Your task to perform on an android device: Open Reddit.com Image 0: 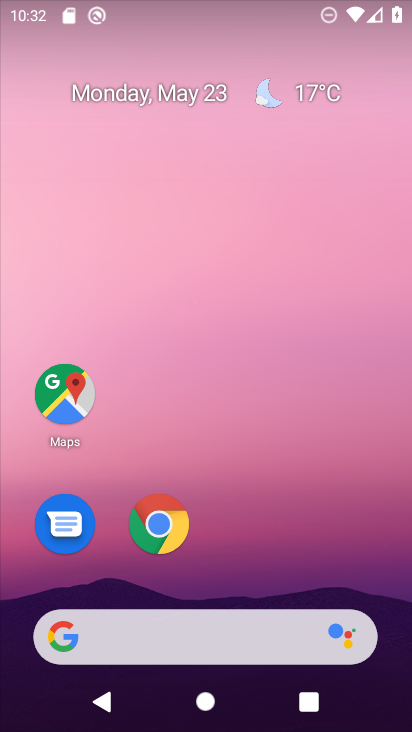
Step 0: click (152, 514)
Your task to perform on an android device: Open Reddit.com Image 1: 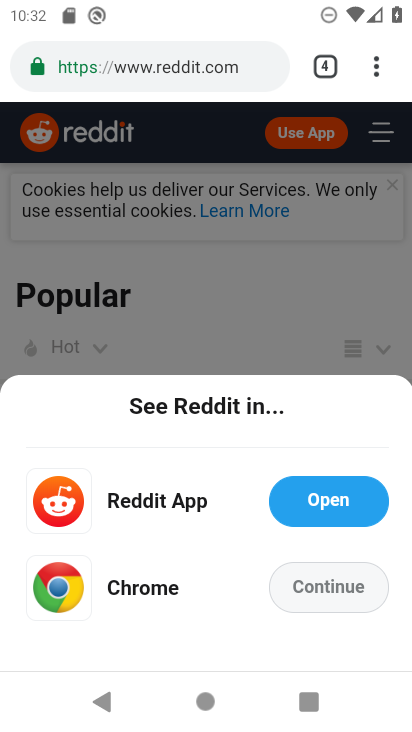
Step 1: click (319, 71)
Your task to perform on an android device: Open Reddit.com Image 2: 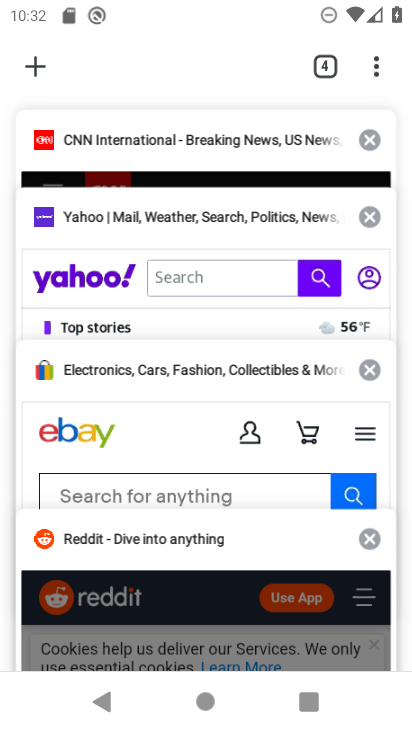
Step 2: click (108, 576)
Your task to perform on an android device: Open Reddit.com Image 3: 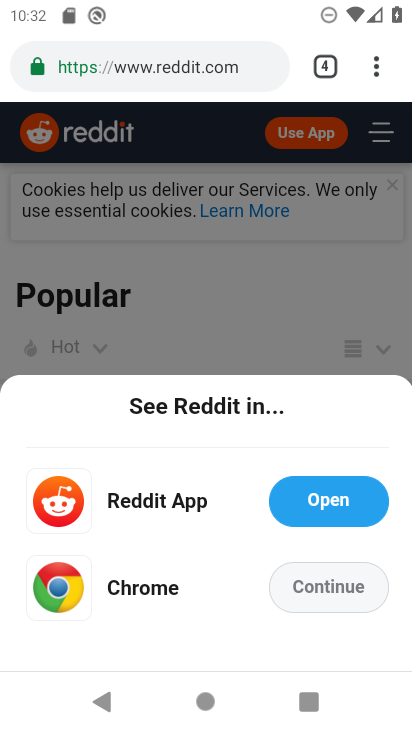
Step 3: click (349, 580)
Your task to perform on an android device: Open Reddit.com Image 4: 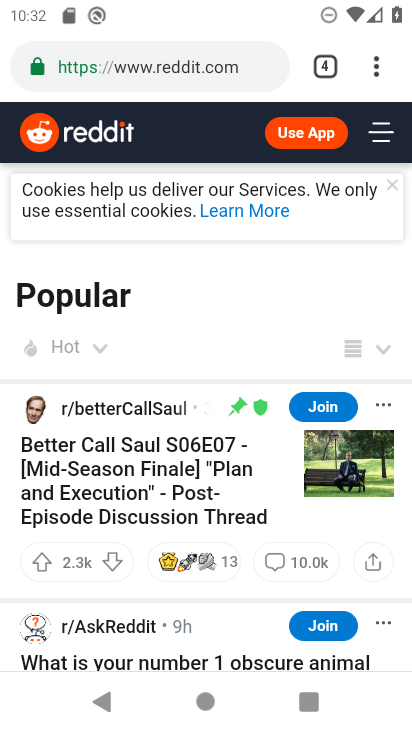
Step 4: task complete